Your task to perform on an android device: turn off wifi Image 0: 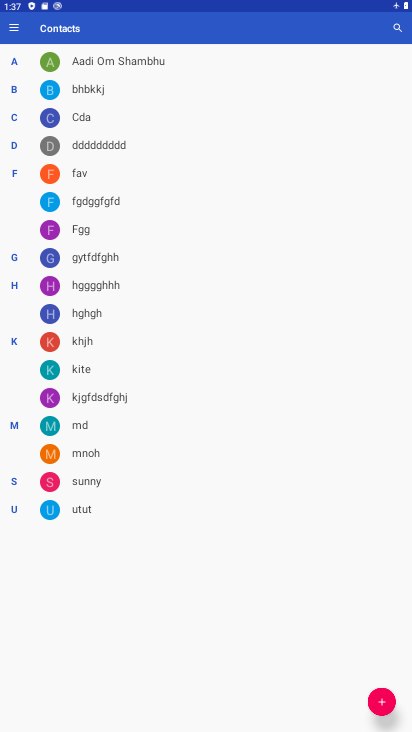
Step 0: press home button
Your task to perform on an android device: turn off wifi Image 1: 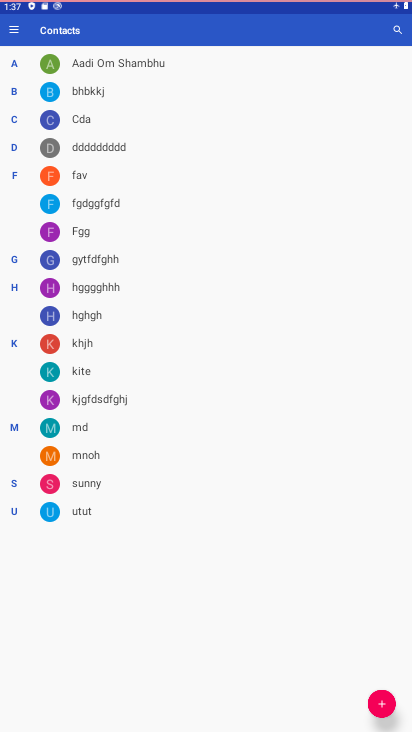
Step 1: press home button
Your task to perform on an android device: turn off wifi Image 2: 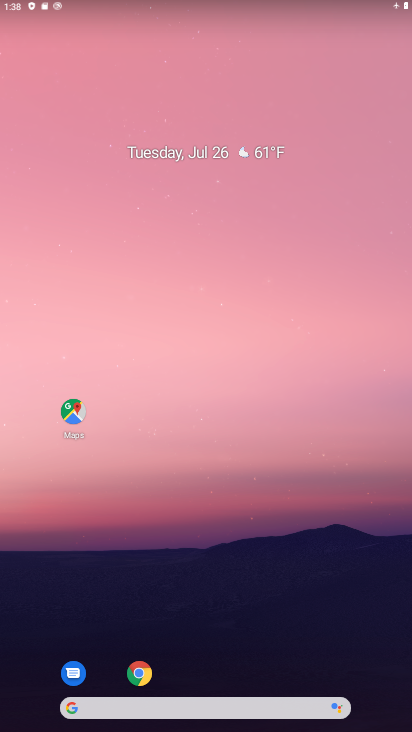
Step 2: drag from (225, 613) to (354, 71)
Your task to perform on an android device: turn off wifi Image 3: 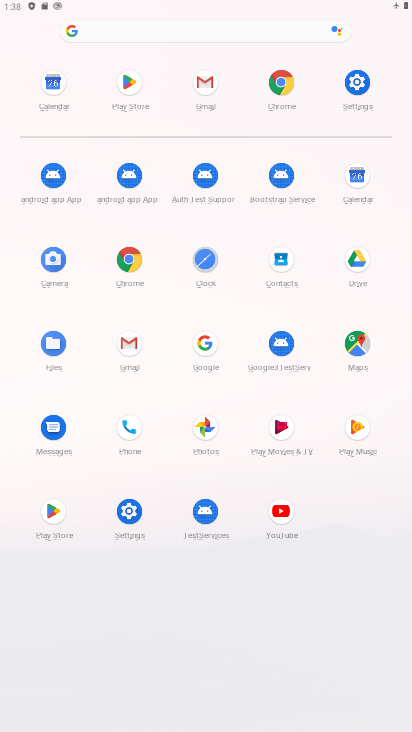
Step 3: click (130, 510)
Your task to perform on an android device: turn off wifi Image 4: 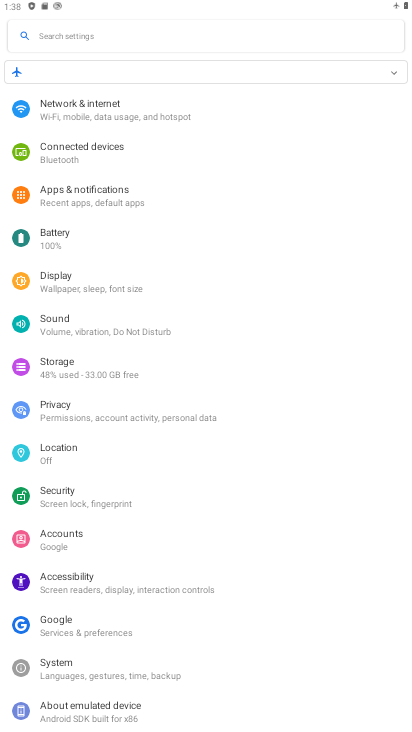
Step 4: click (131, 100)
Your task to perform on an android device: turn off wifi Image 5: 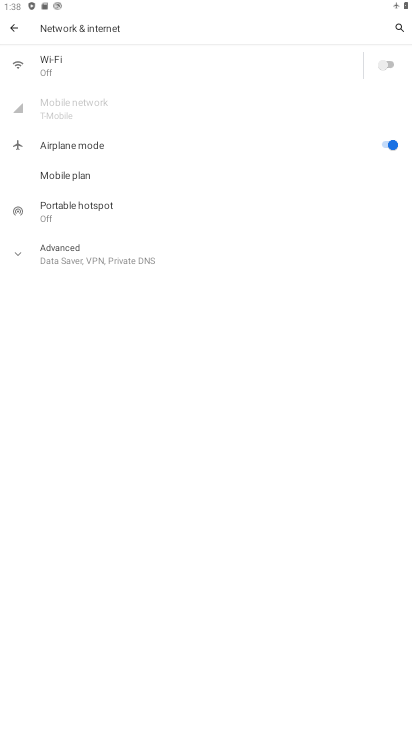
Step 5: click (210, 63)
Your task to perform on an android device: turn off wifi Image 6: 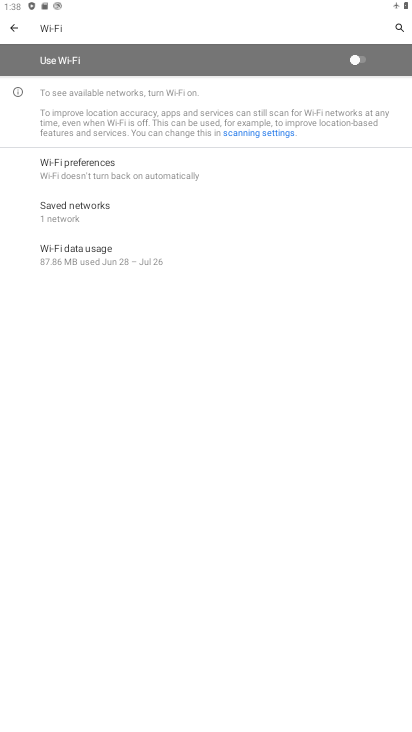
Step 6: task complete